Your task to perform on an android device: change keyboard looks Image 0: 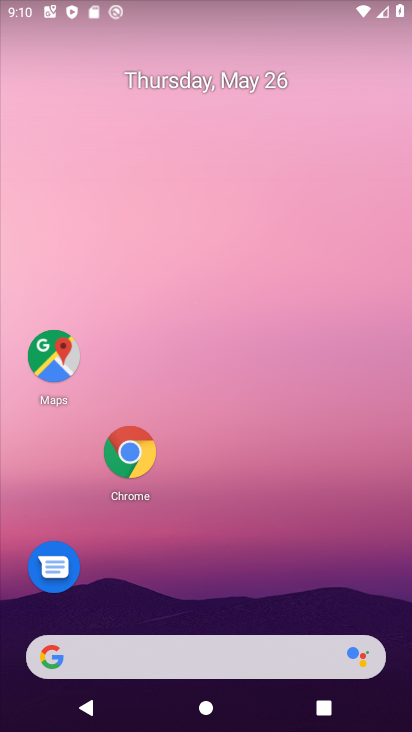
Step 0: drag from (157, 654) to (353, 159)
Your task to perform on an android device: change keyboard looks Image 1: 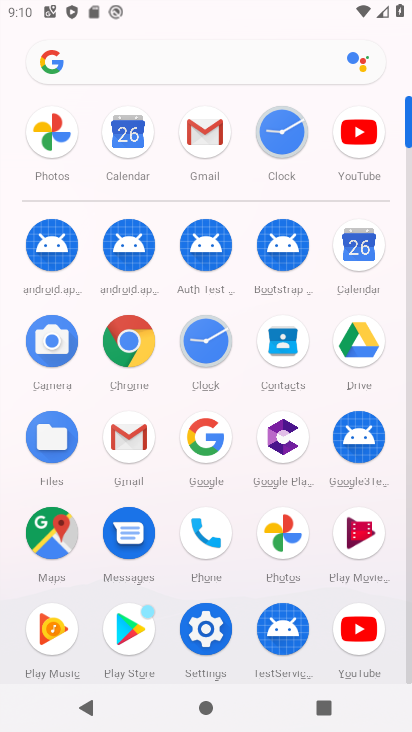
Step 1: click (209, 623)
Your task to perform on an android device: change keyboard looks Image 2: 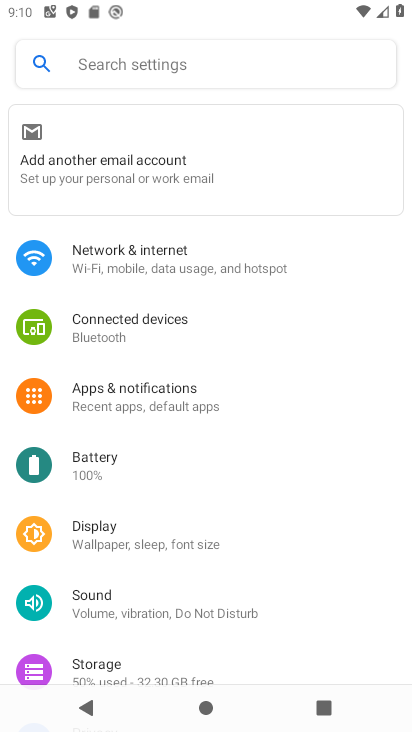
Step 2: drag from (196, 647) to (345, 156)
Your task to perform on an android device: change keyboard looks Image 3: 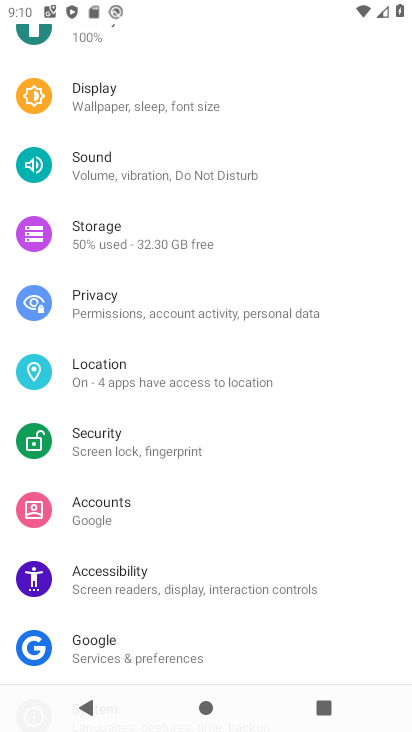
Step 3: drag from (206, 598) to (354, 135)
Your task to perform on an android device: change keyboard looks Image 4: 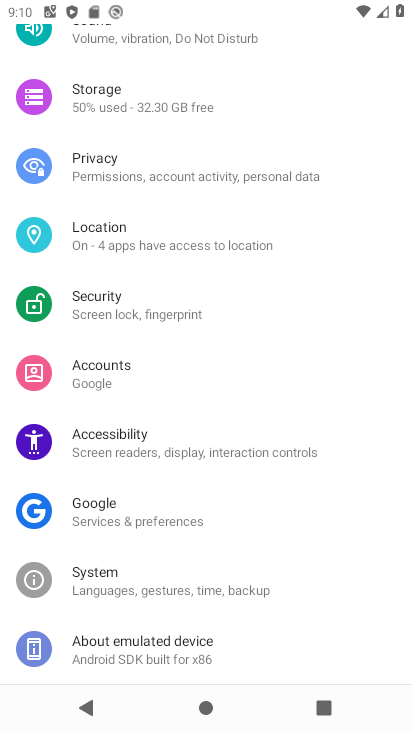
Step 4: click (157, 579)
Your task to perform on an android device: change keyboard looks Image 5: 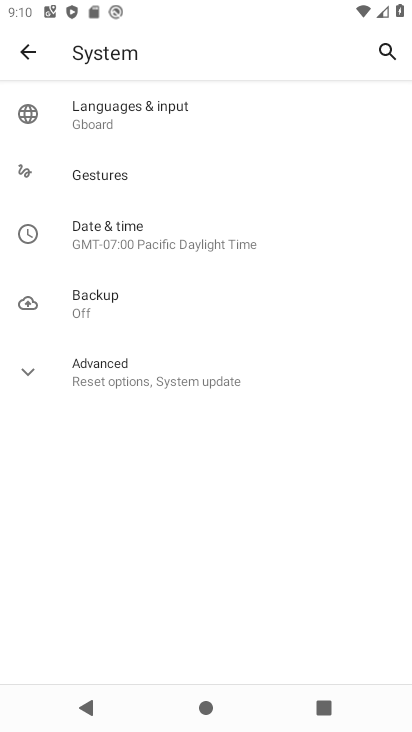
Step 5: click (99, 117)
Your task to perform on an android device: change keyboard looks Image 6: 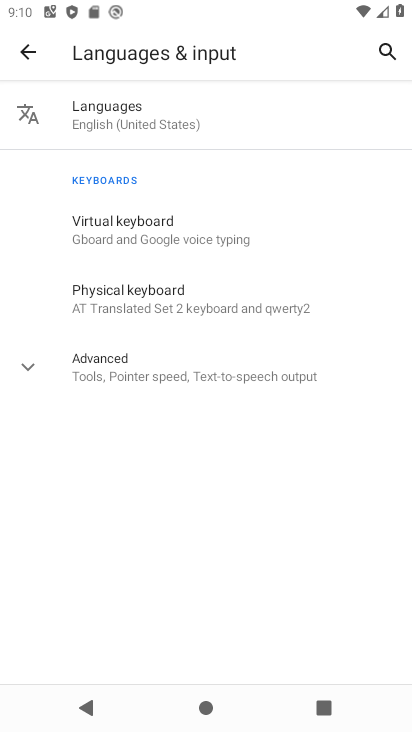
Step 6: click (135, 229)
Your task to perform on an android device: change keyboard looks Image 7: 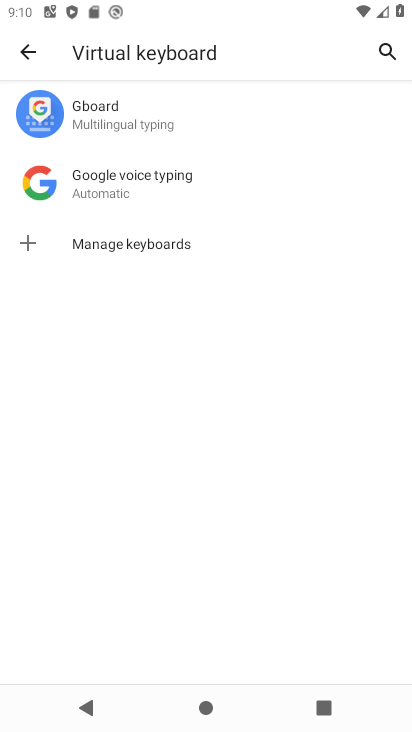
Step 7: click (116, 120)
Your task to perform on an android device: change keyboard looks Image 8: 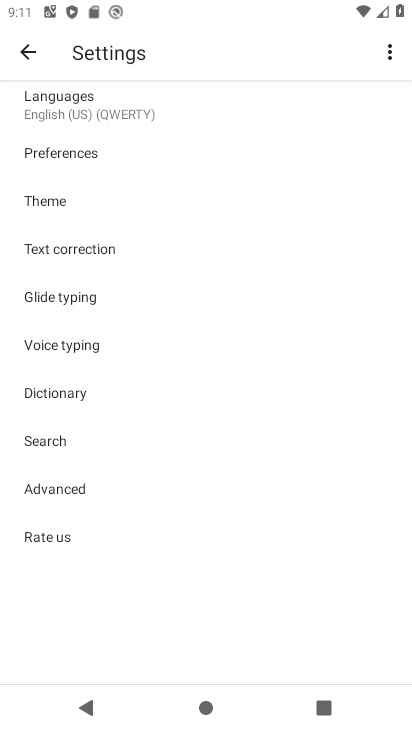
Step 8: click (38, 202)
Your task to perform on an android device: change keyboard looks Image 9: 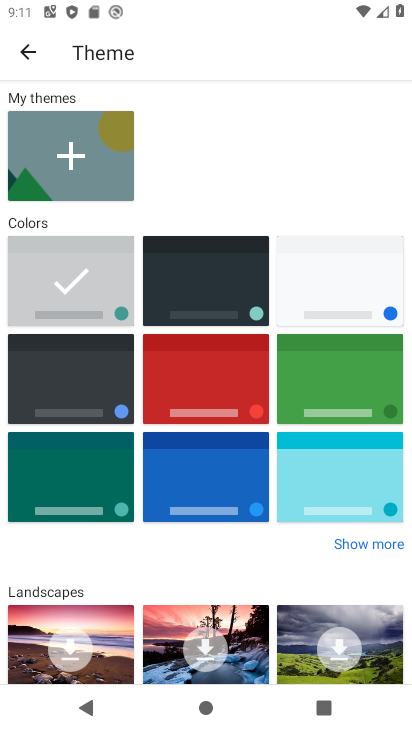
Step 9: click (337, 478)
Your task to perform on an android device: change keyboard looks Image 10: 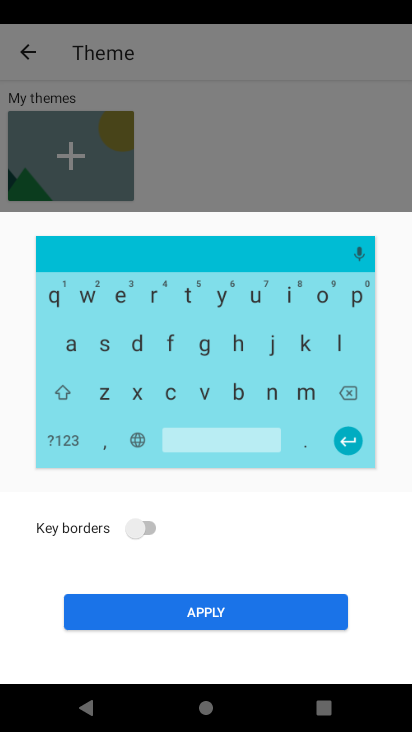
Step 10: click (196, 613)
Your task to perform on an android device: change keyboard looks Image 11: 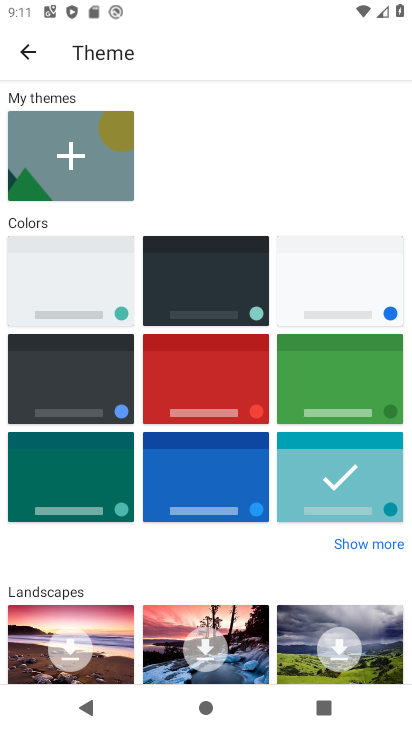
Step 11: task complete